Your task to perform on an android device: toggle wifi Image 0: 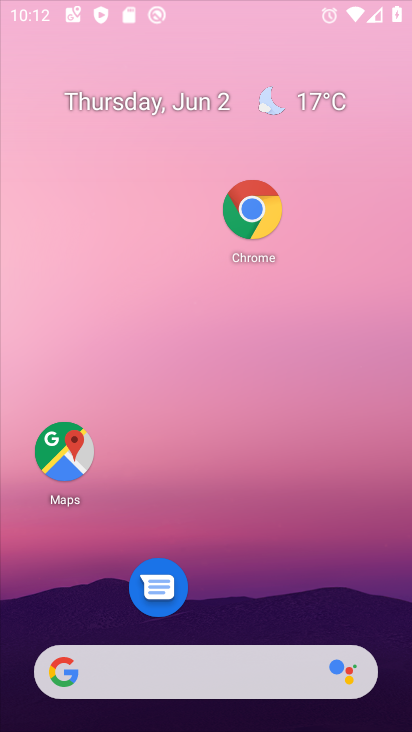
Step 0: press home button
Your task to perform on an android device: toggle wifi Image 1: 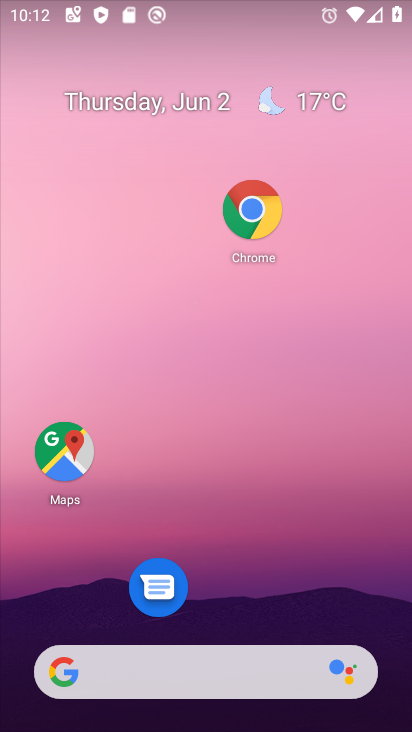
Step 1: drag from (211, 15) to (221, 597)
Your task to perform on an android device: toggle wifi Image 2: 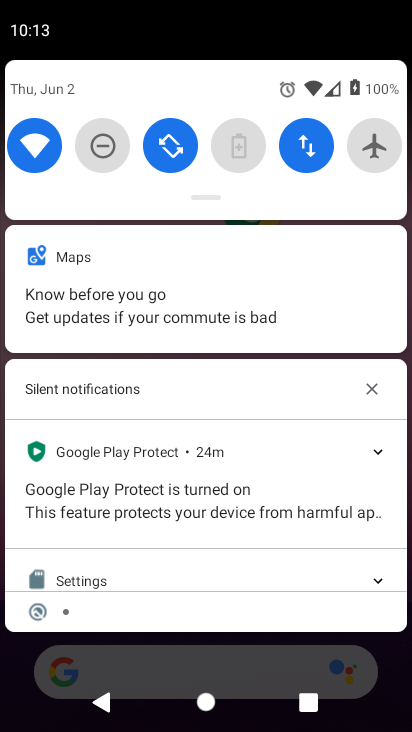
Step 2: click (36, 146)
Your task to perform on an android device: toggle wifi Image 3: 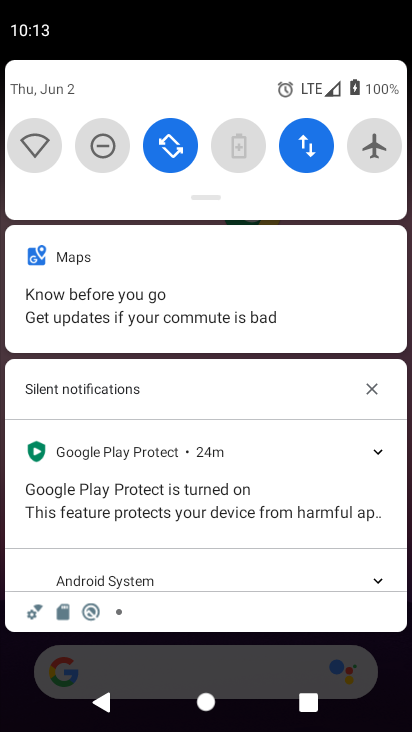
Step 3: task complete